Your task to perform on an android device: Search for seafood restaurants on Google Maps Image 0: 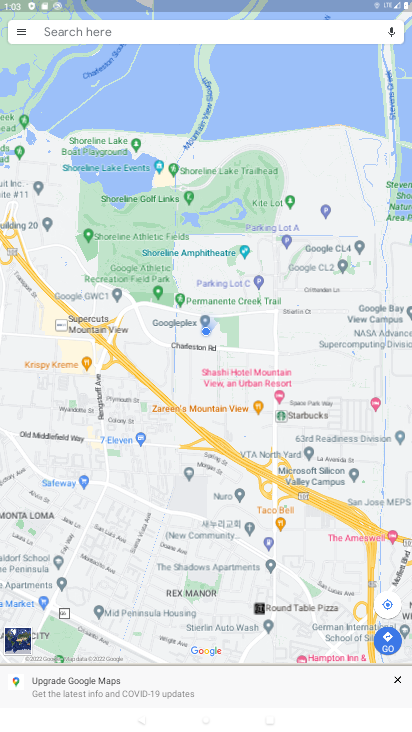
Step 0: press home button
Your task to perform on an android device: Search for seafood restaurants on Google Maps Image 1: 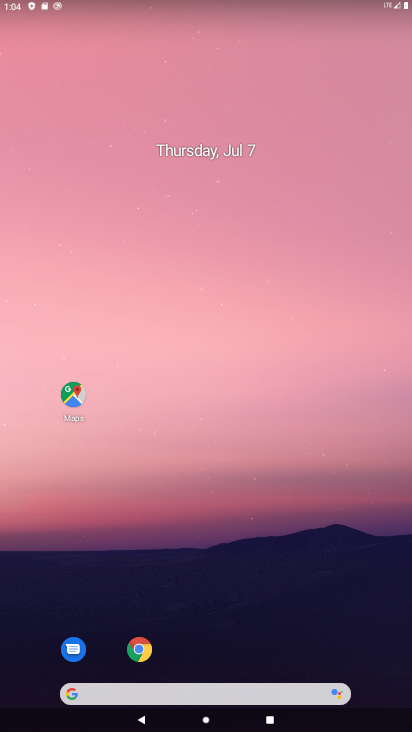
Step 1: click (62, 386)
Your task to perform on an android device: Search for seafood restaurants on Google Maps Image 2: 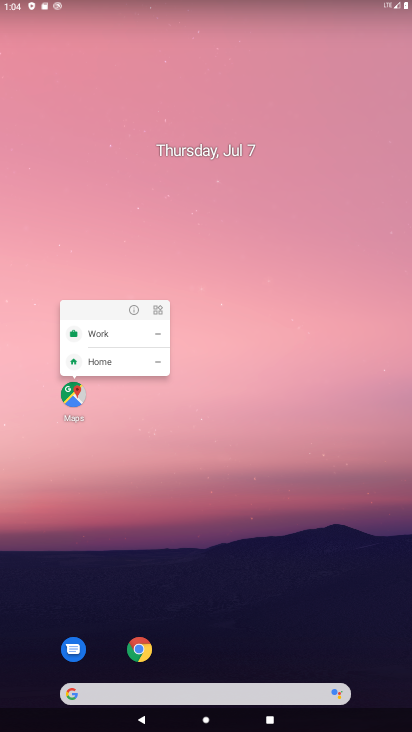
Step 2: click (66, 396)
Your task to perform on an android device: Search for seafood restaurants on Google Maps Image 3: 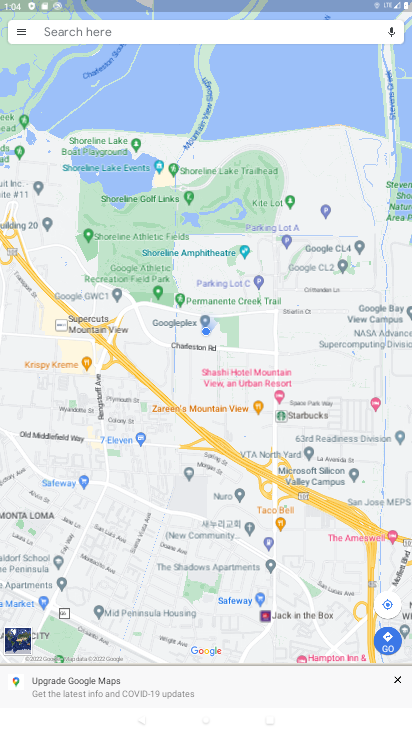
Step 3: click (169, 27)
Your task to perform on an android device: Search for seafood restaurants on Google Maps Image 4: 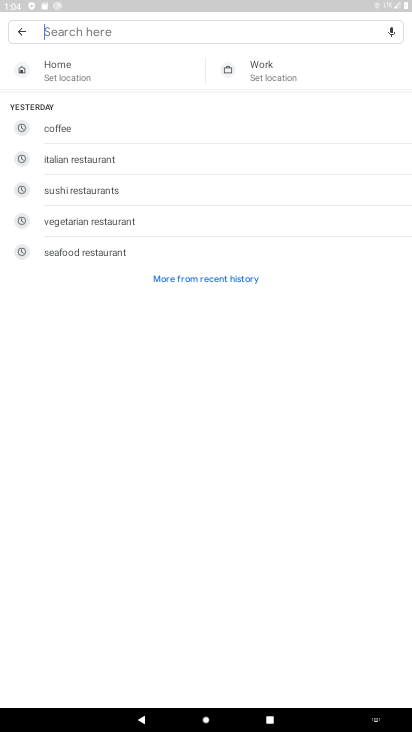
Step 4: click (91, 254)
Your task to perform on an android device: Search for seafood restaurants on Google Maps Image 5: 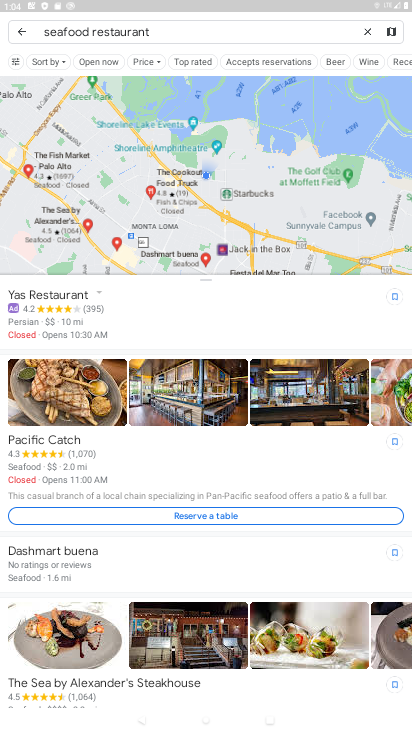
Step 5: task complete